Your task to perform on an android device: open sync settings in chrome Image 0: 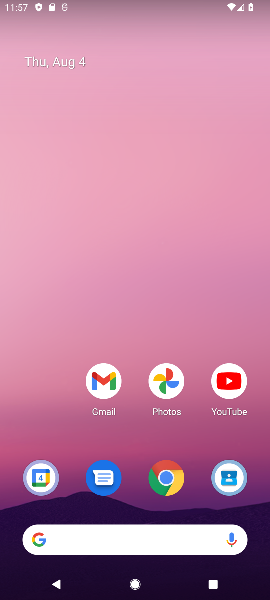
Step 0: drag from (149, 456) to (221, 89)
Your task to perform on an android device: open sync settings in chrome Image 1: 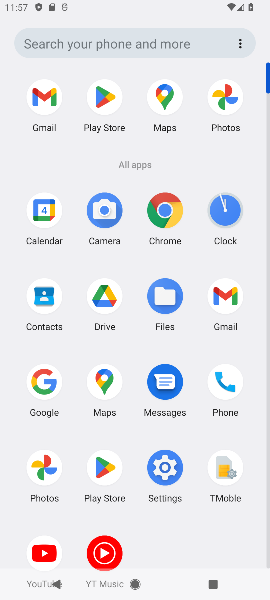
Step 1: click (162, 203)
Your task to perform on an android device: open sync settings in chrome Image 2: 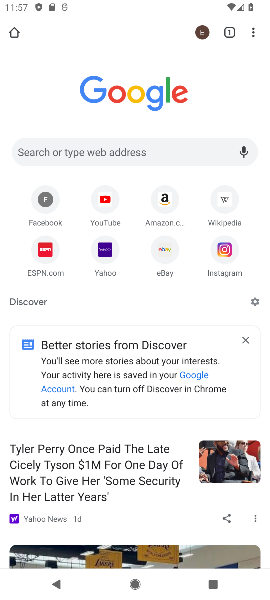
Step 2: drag from (257, 36) to (160, 310)
Your task to perform on an android device: open sync settings in chrome Image 3: 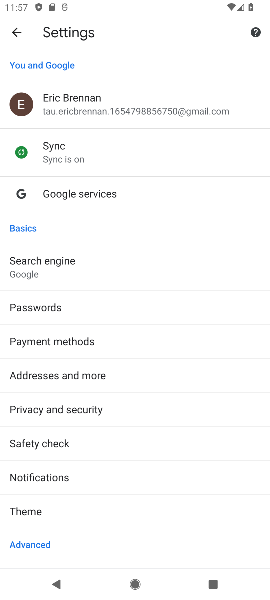
Step 3: click (73, 147)
Your task to perform on an android device: open sync settings in chrome Image 4: 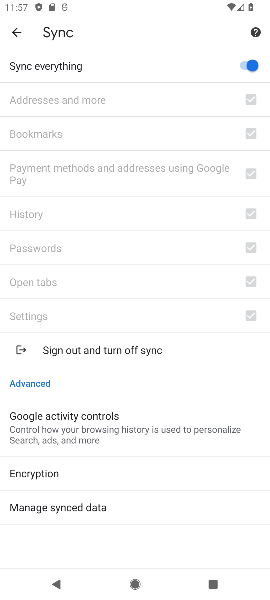
Step 4: task complete